Your task to perform on an android device: Show me popular videos on Youtube Image 0: 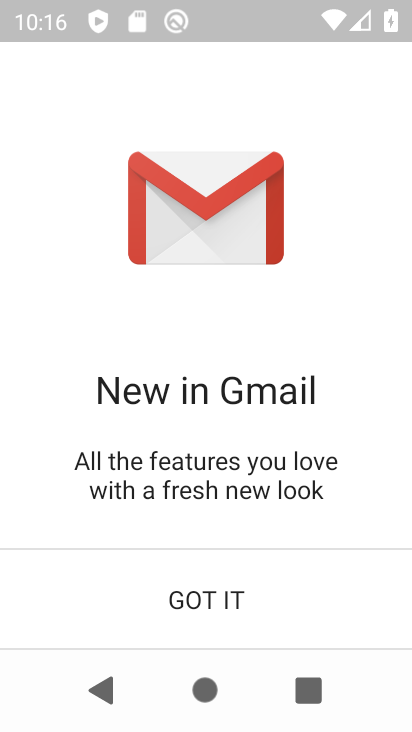
Step 0: press home button
Your task to perform on an android device: Show me popular videos on Youtube Image 1: 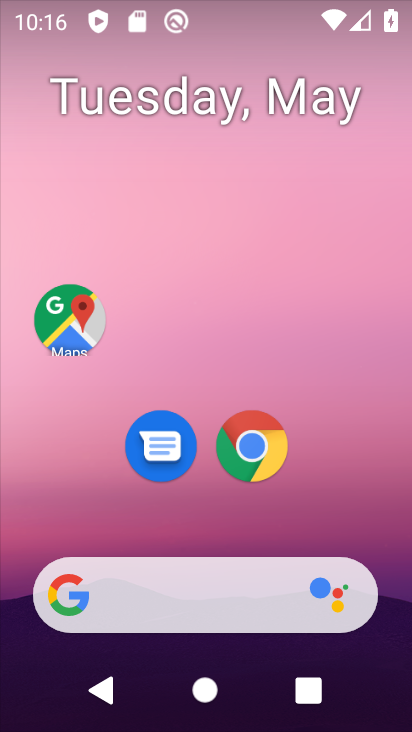
Step 1: drag from (341, 515) to (304, 0)
Your task to perform on an android device: Show me popular videos on Youtube Image 2: 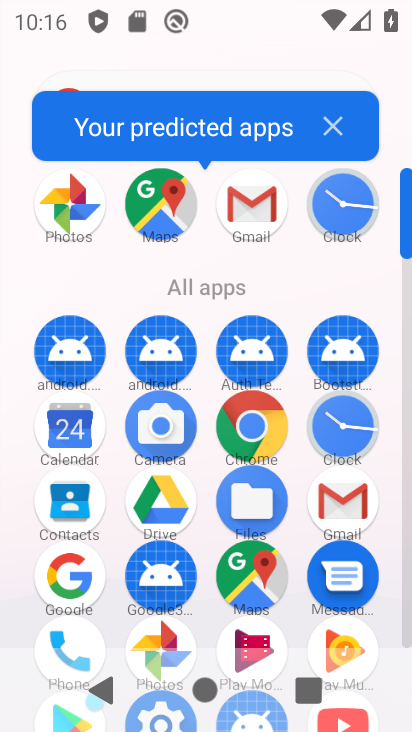
Step 2: drag from (205, 620) to (212, 321)
Your task to perform on an android device: Show me popular videos on Youtube Image 3: 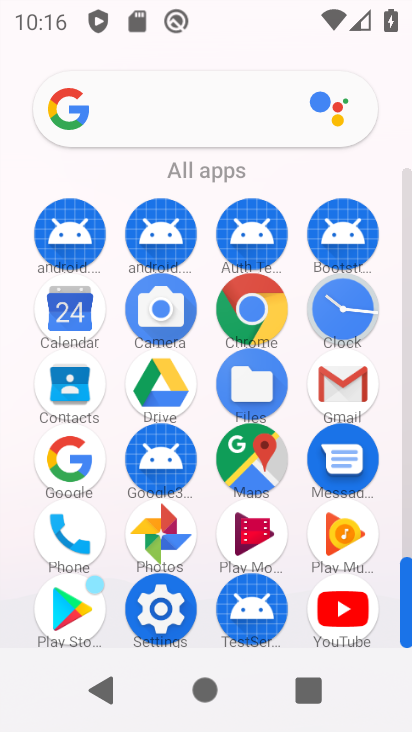
Step 3: click (342, 611)
Your task to perform on an android device: Show me popular videos on Youtube Image 4: 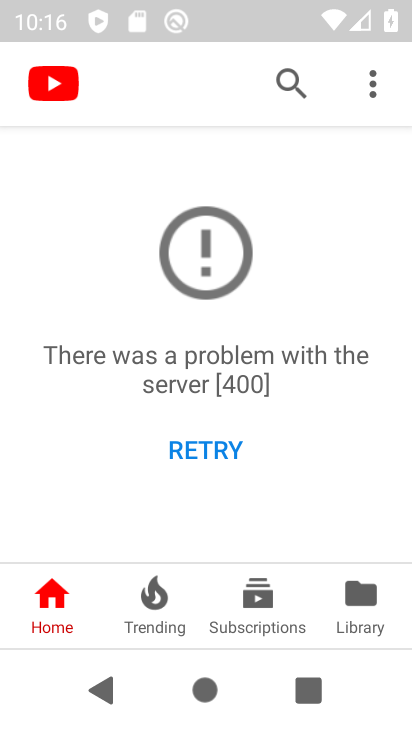
Step 4: click (298, 70)
Your task to perform on an android device: Show me popular videos on Youtube Image 5: 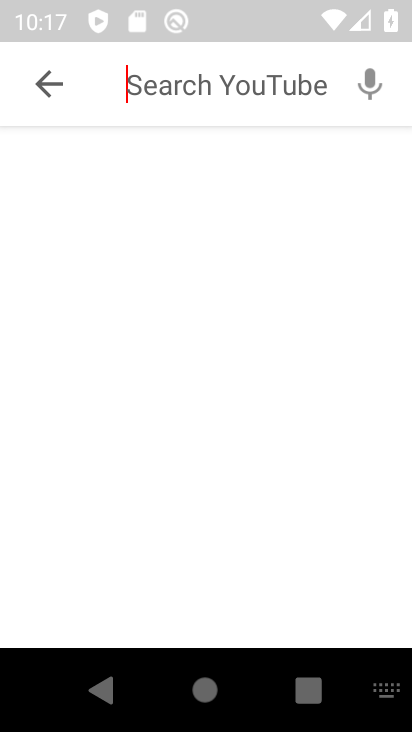
Step 5: type "popular videos"
Your task to perform on an android device: Show me popular videos on Youtube Image 6: 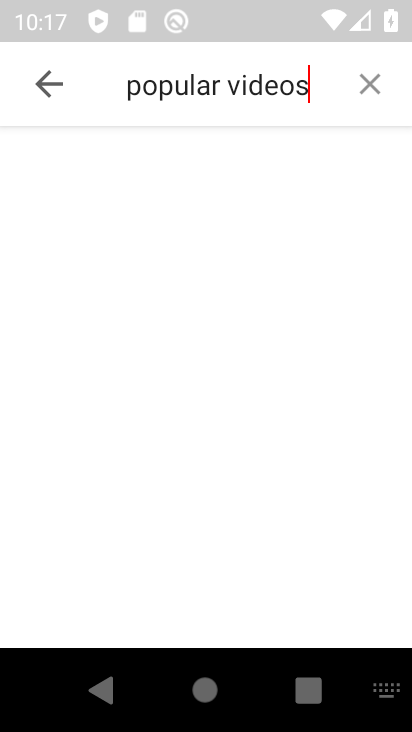
Step 6: type ""
Your task to perform on an android device: Show me popular videos on Youtube Image 7: 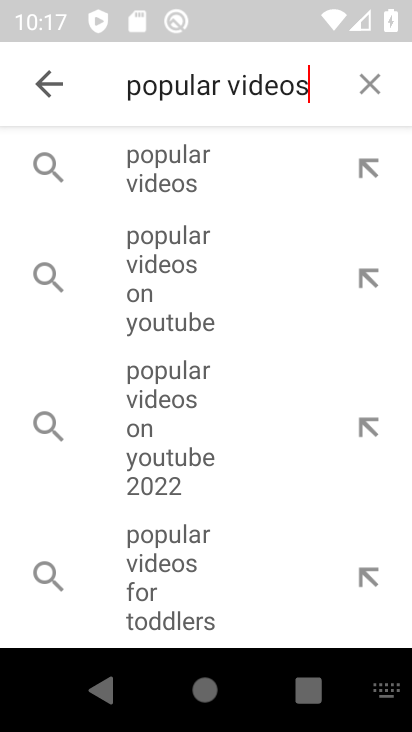
Step 7: click (189, 166)
Your task to perform on an android device: Show me popular videos on Youtube Image 8: 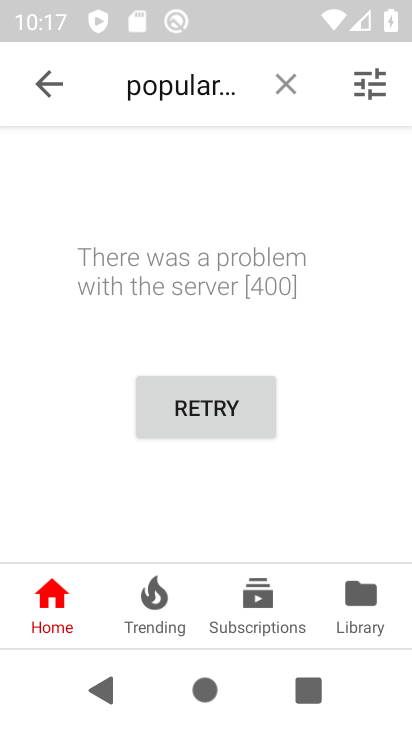
Step 8: task complete